Your task to perform on an android device: Open wifi settings Image 0: 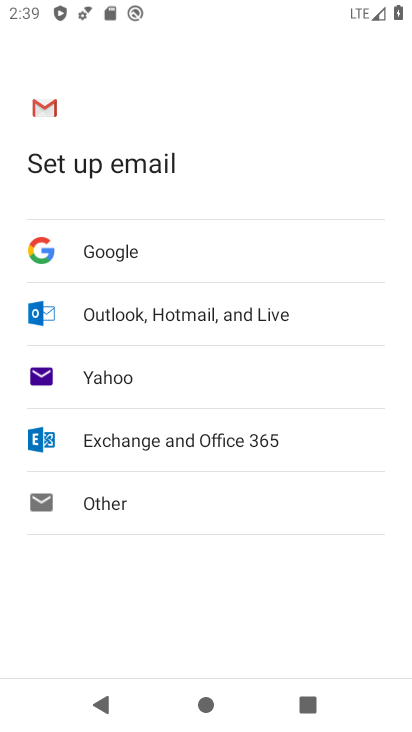
Step 0: press home button
Your task to perform on an android device: Open wifi settings Image 1: 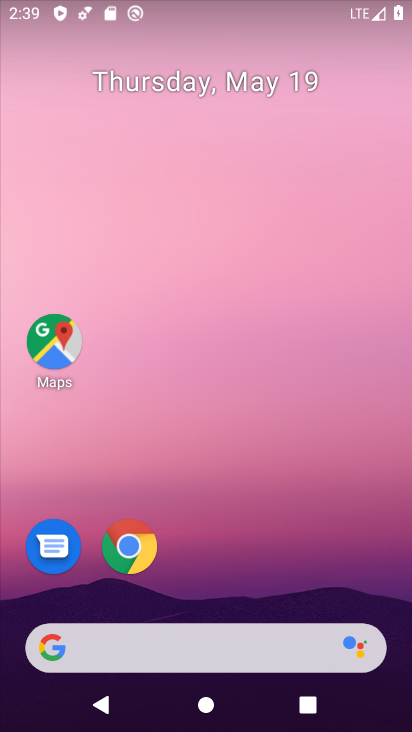
Step 1: drag from (142, 647) to (318, 129)
Your task to perform on an android device: Open wifi settings Image 2: 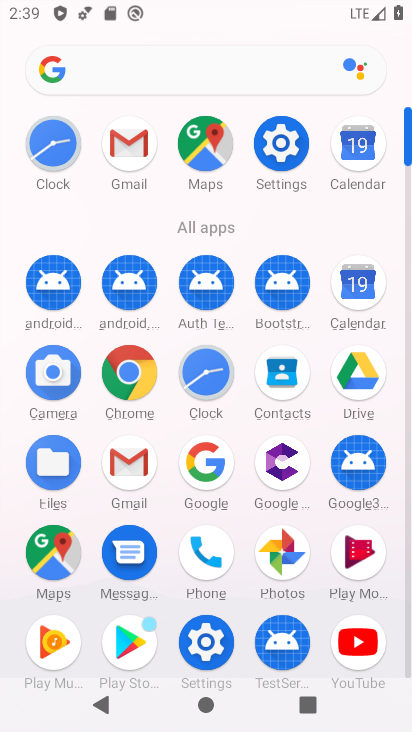
Step 2: click (283, 148)
Your task to perform on an android device: Open wifi settings Image 3: 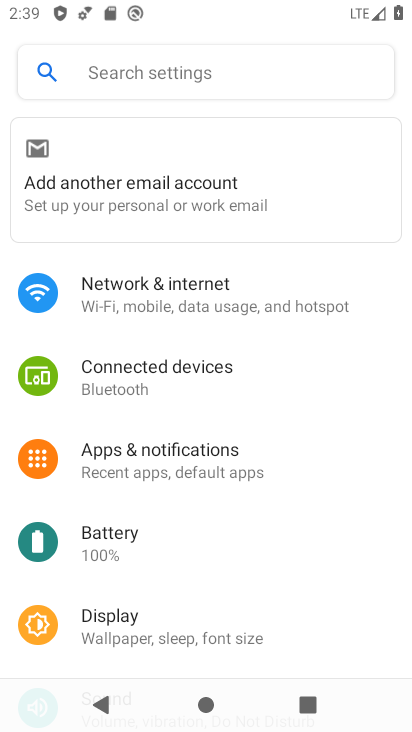
Step 3: click (173, 285)
Your task to perform on an android device: Open wifi settings Image 4: 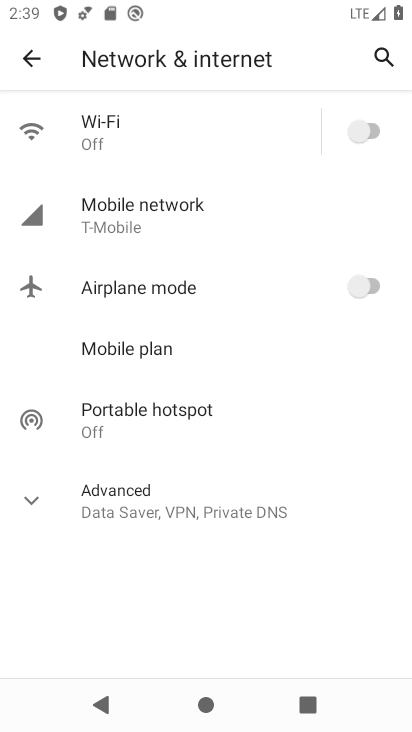
Step 4: click (86, 142)
Your task to perform on an android device: Open wifi settings Image 5: 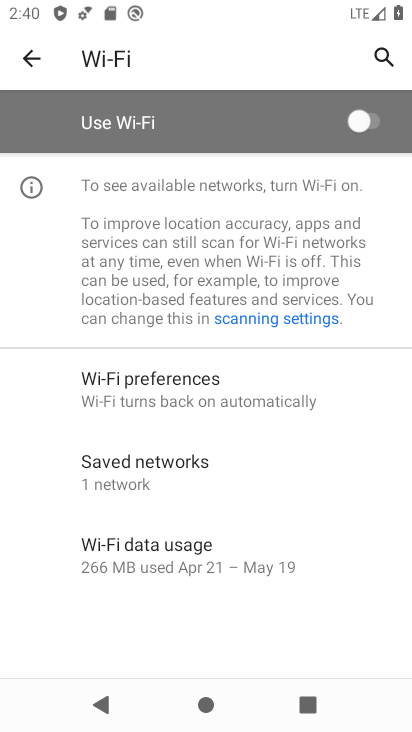
Step 5: task complete